Your task to perform on an android device: find photos in the google photos app Image 0: 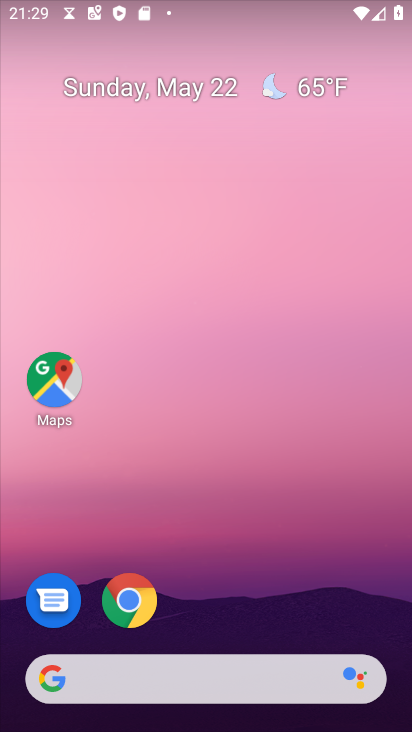
Step 0: drag from (233, 594) to (182, 159)
Your task to perform on an android device: find photos in the google photos app Image 1: 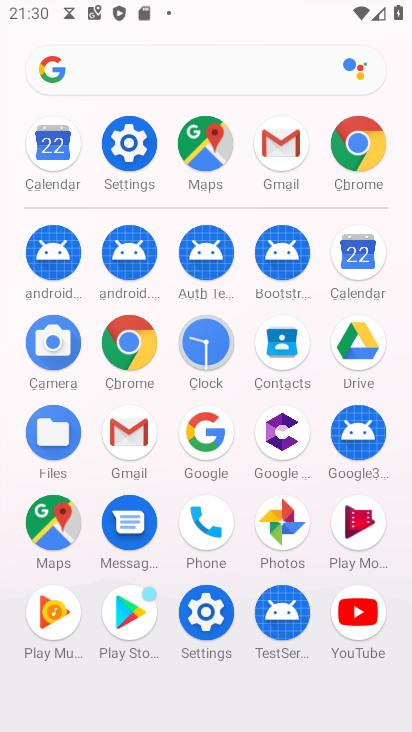
Step 1: click (274, 536)
Your task to perform on an android device: find photos in the google photos app Image 2: 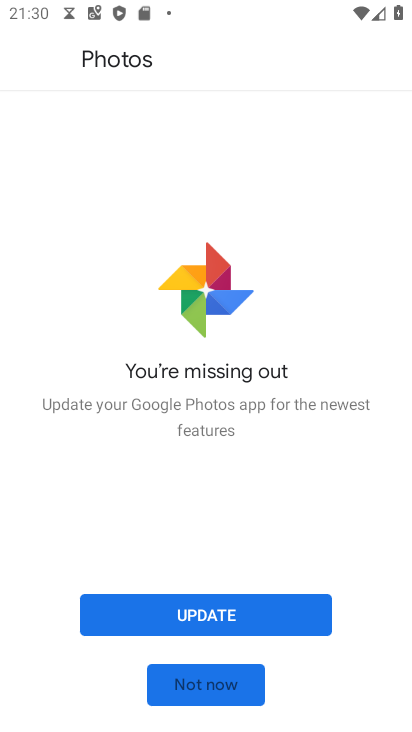
Step 2: click (234, 685)
Your task to perform on an android device: find photos in the google photos app Image 3: 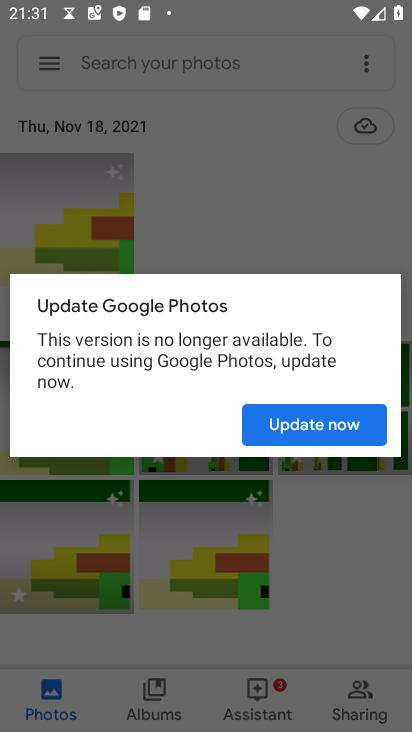
Step 3: task complete